Your task to perform on an android device: Open settings on Google Maps Image 0: 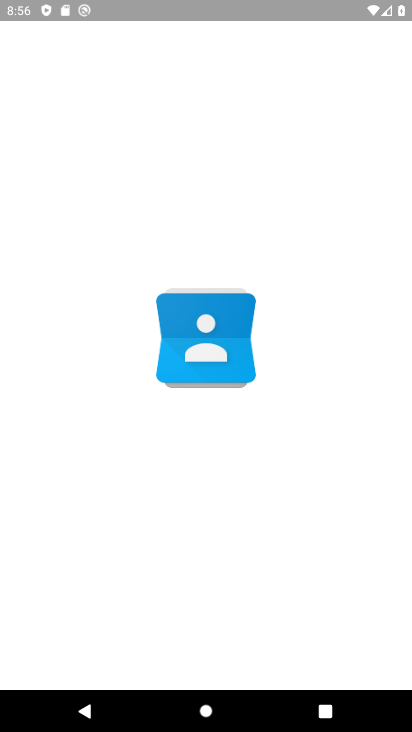
Step 0: drag from (221, 622) to (239, 58)
Your task to perform on an android device: Open settings on Google Maps Image 1: 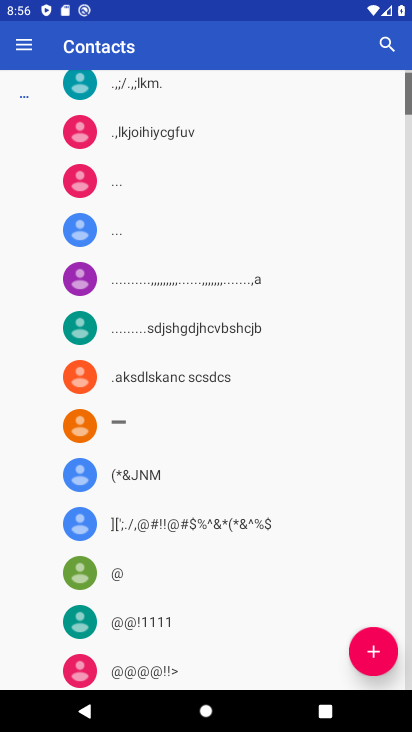
Step 1: press home button
Your task to perform on an android device: Open settings on Google Maps Image 2: 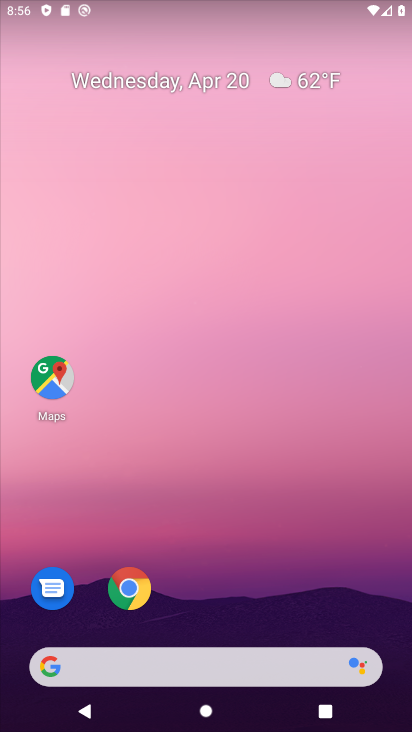
Step 2: click (51, 370)
Your task to perform on an android device: Open settings on Google Maps Image 3: 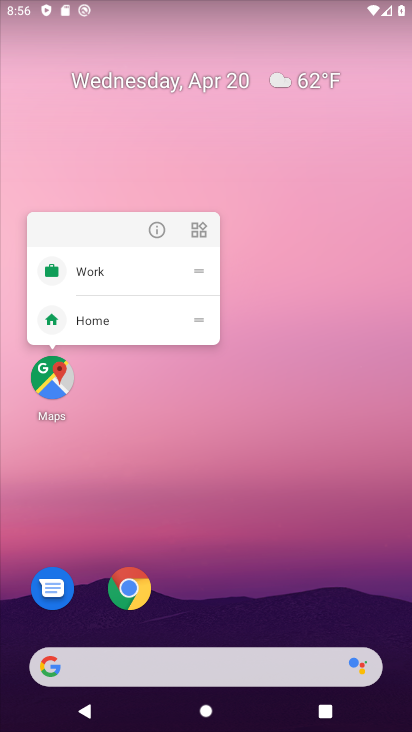
Step 3: click (100, 381)
Your task to perform on an android device: Open settings on Google Maps Image 4: 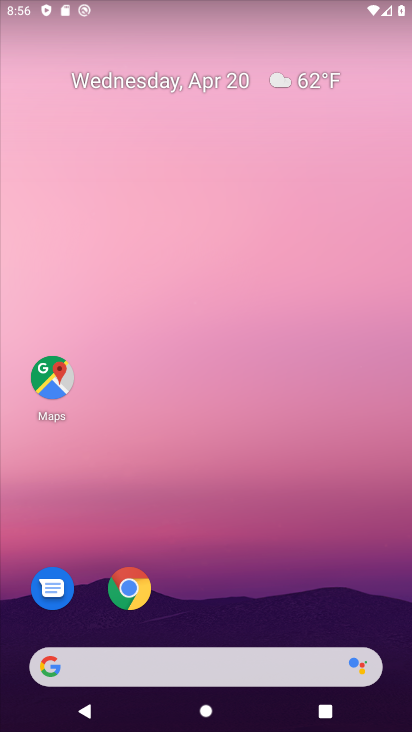
Step 4: click (51, 375)
Your task to perform on an android device: Open settings on Google Maps Image 5: 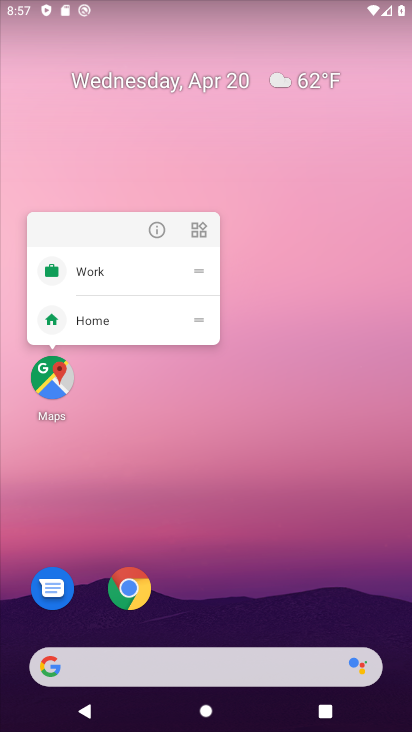
Step 5: click (51, 375)
Your task to perform on an android device: Open settings on Google Maps Image 6: 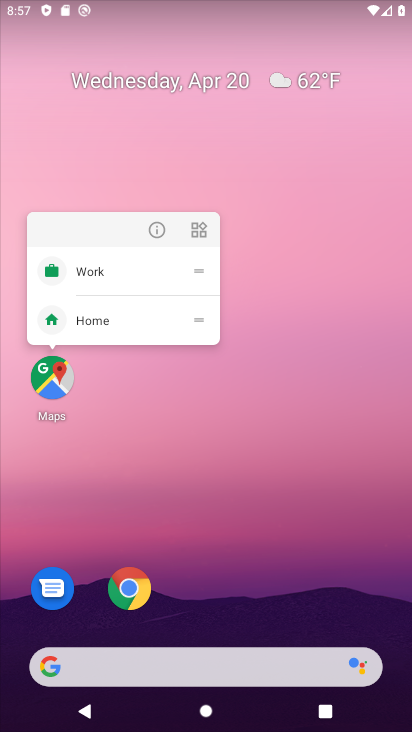
Step 6: click (87, 406)
Your task to perform on an android device: Open settings on Google Maps Image 7: 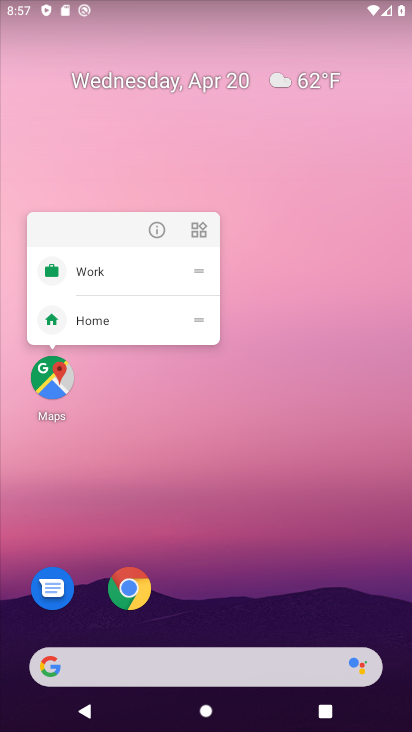
Step 7: click (69, 457)
Your task to perform on an android device: Open settings on Google Maps Image 8: 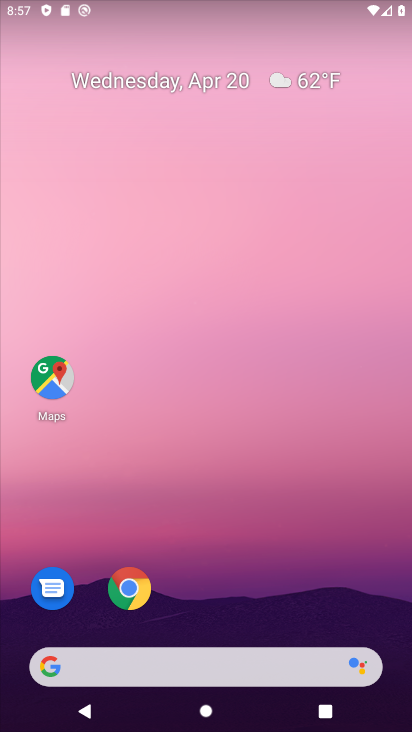
Step 8: click (54, 374)
Your task to perform on an android device: Open settings on Google Maps Image 9: 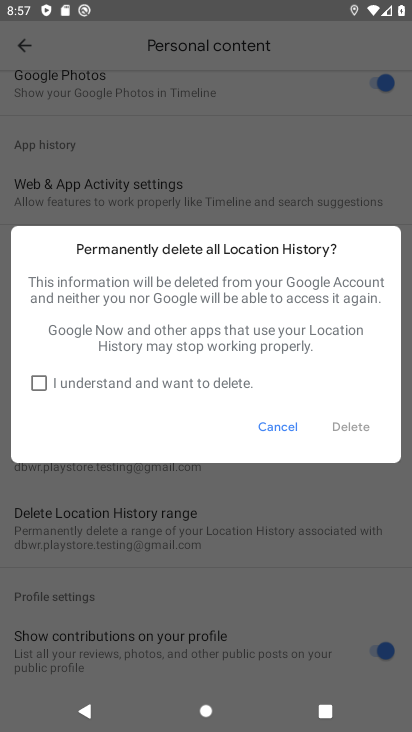
Step 9: click (265, 423)
Your task to perform on an android device: Open settings on Google Maps Image 10: 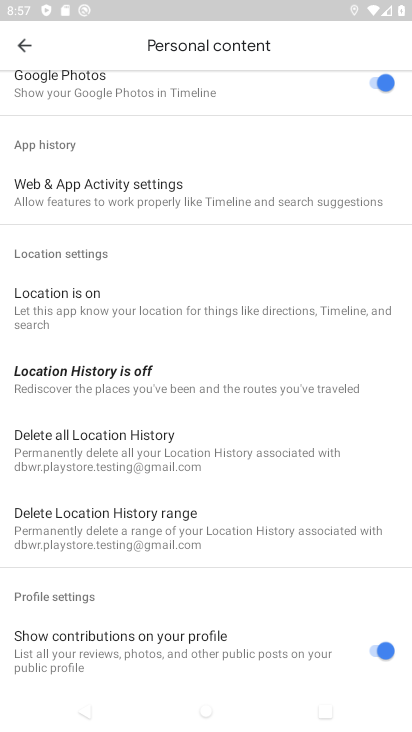
Step 10: press back button
Your task to perform on an android device: Open settings on Google Maps Image 11: 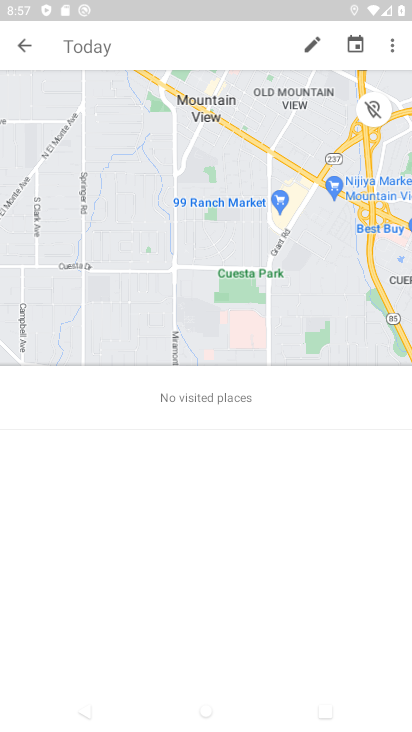
Step 11: press back button
Your task to perform on an android device: Open settings on Google Maps Image 12: 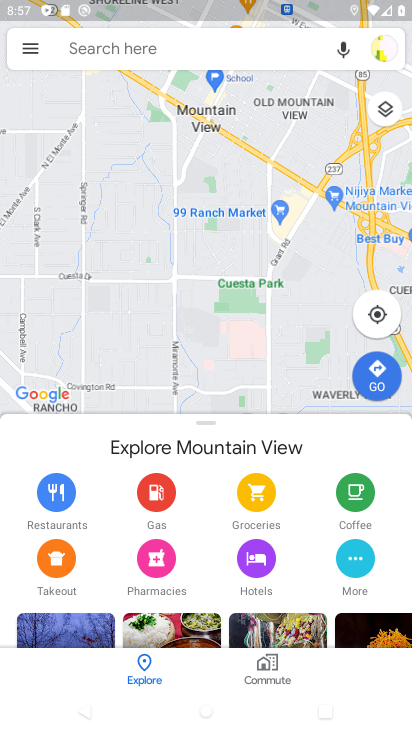
Step 12: click (28, 44)
Your task to perform on an android device: Open settings on Google Maps Image 13: 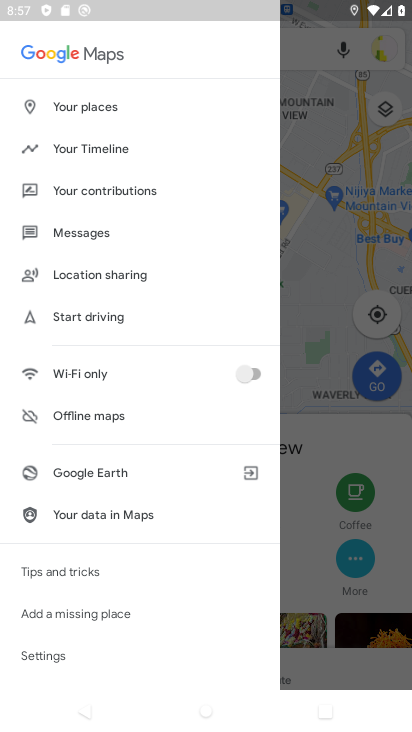
Step 13: click (65, 651)
Your task to perform on an android device: Open settings on Google Maps Image 14: 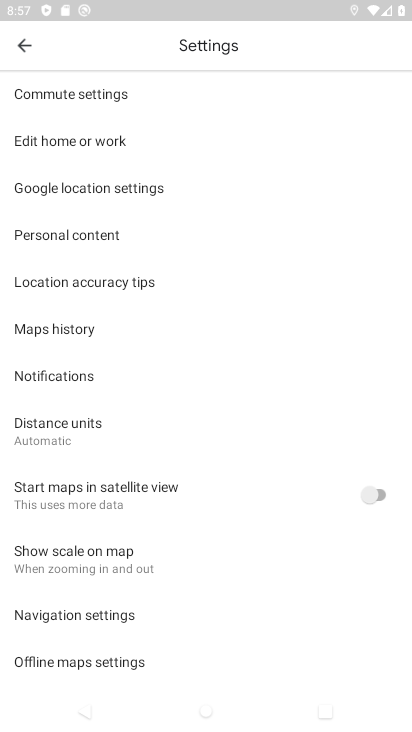
Step 14: task complete